Your task to perform on an android device: open a bookmark in the chrome app Image 0: 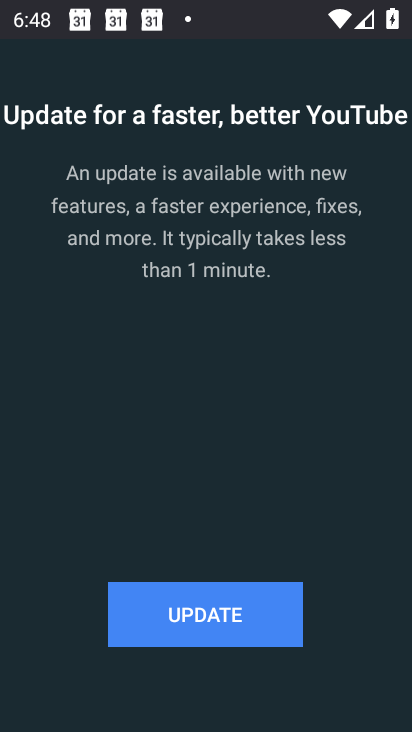
Step 0: press home button
Your task to perform on an android device: open a bookmark in the chrome app Image 1: 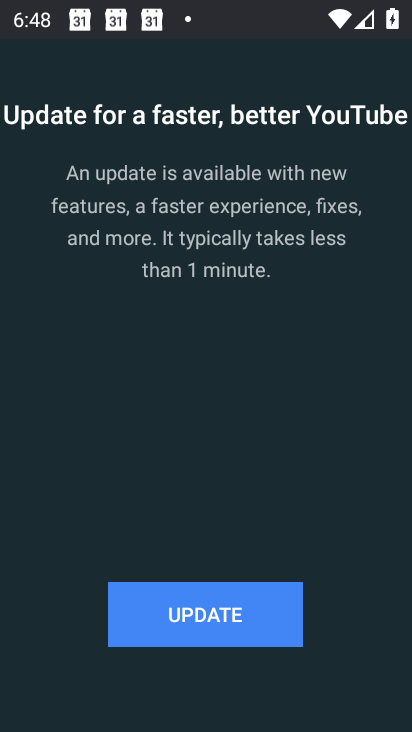
Step 1: press home button
Your task to perform on an android device: open a bookmark in the chrome app Image 2: 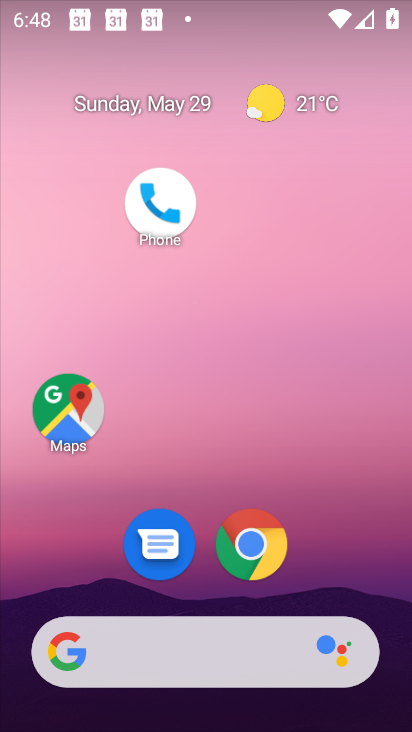
Step 2: click (253, 545)
Your task to perform on an android device: open a bookmark in the chrome app Image 3: 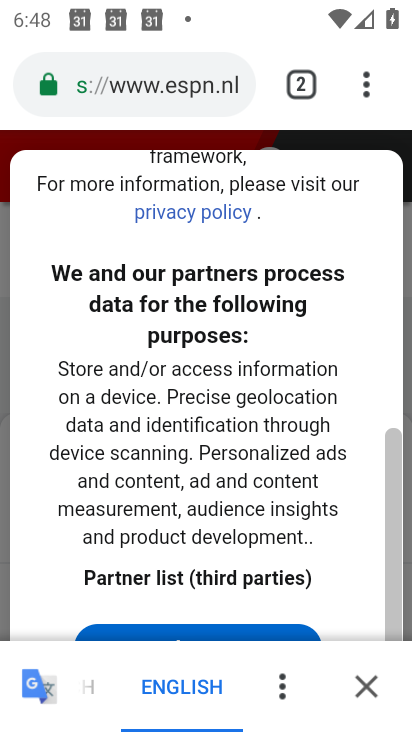
Step 3: click (374, 83)
Your task to perform on an android device: open a bookmark in the chrome app Image 4: 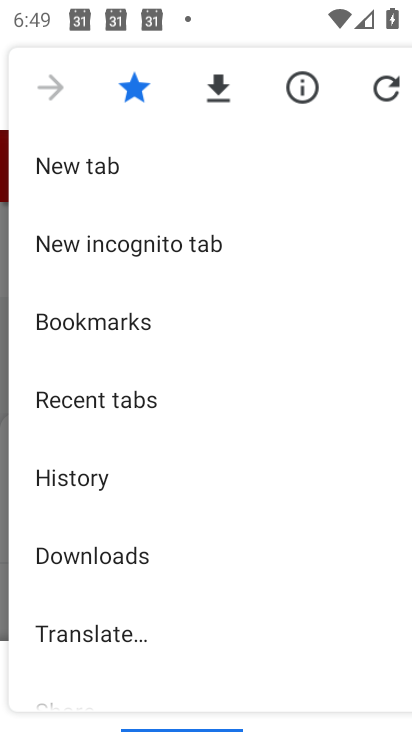
Step 4: click (100, 317)
Your task to perform on an android device: open a bookmark in the chrome app Image 5: 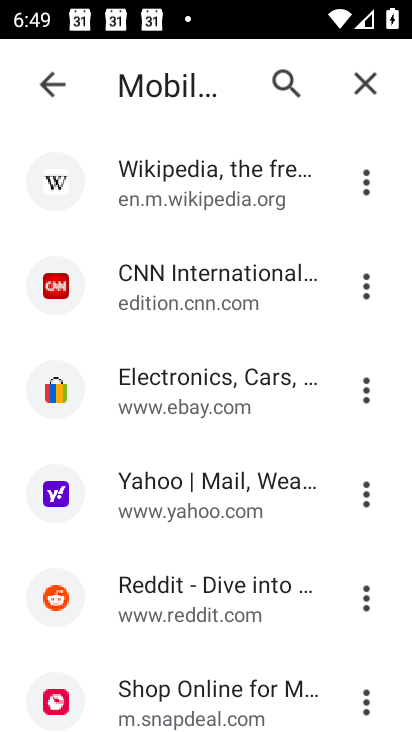
Step 5: task complete